Your task to perform on an android device: clear all cookies in the chrome app Image 0: 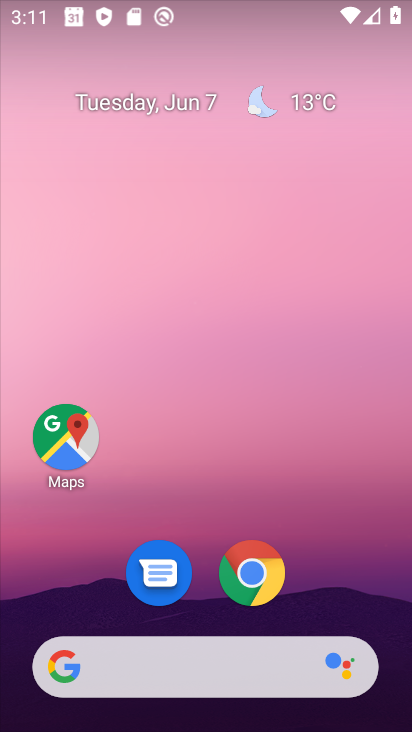
Step 0: click (263, 578)
Your task to perform on an android device: clear all cookies in the chrome app Image 1: 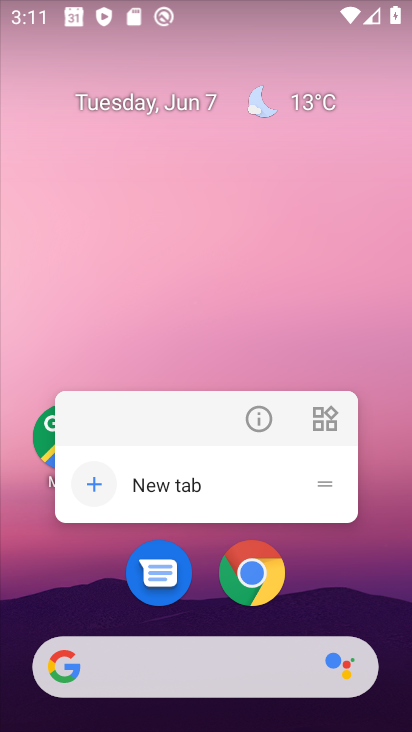
Step 1: click (263, 578)
Your task to perform on an android device: clear all cookies in the chrome app Image 2: 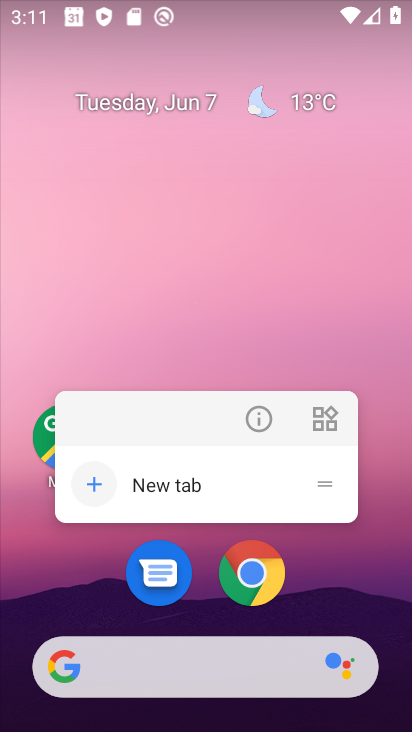
Step 2: click (263, 578)
Your task to perform on an android device: clear all cookies in the chrome app Image 3: 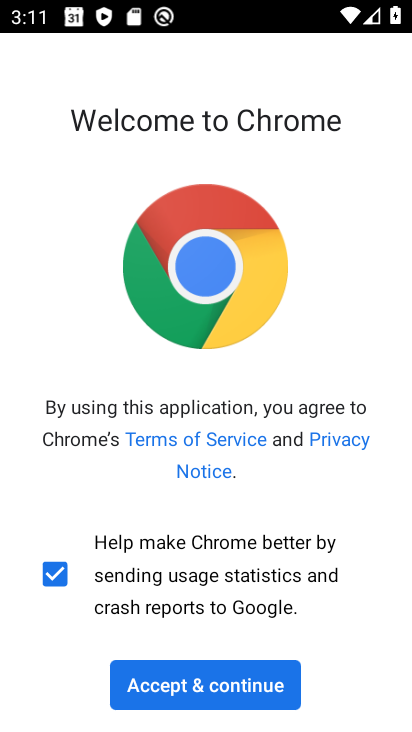
Step 3: click (249, 681)
Your task to perform on an android device: clear all cookies in the chrome app Image 4: 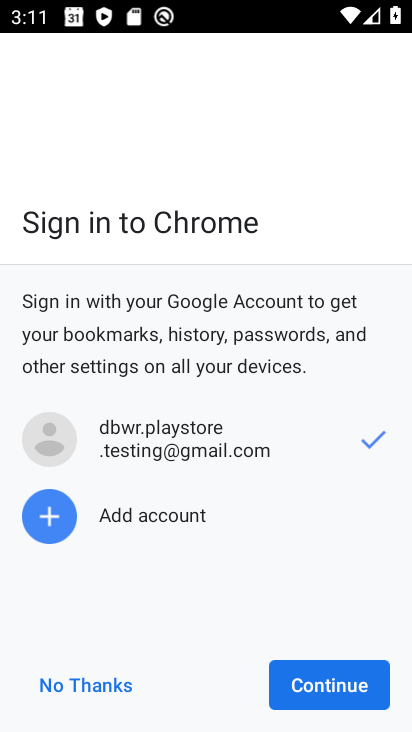
Step 4: click (318, 679)
Your task to perform on an android device: clear all cookies in the chrome app Image 5: 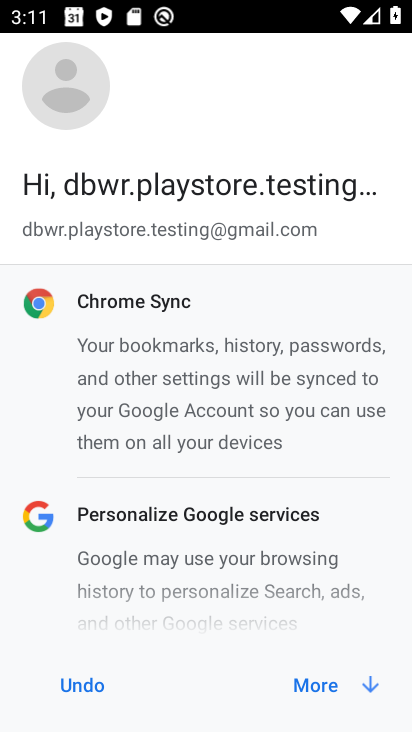
Step 5: click (318, 679)
Your task to perform on an android device: clear all cookies in the chrome app Image 6: 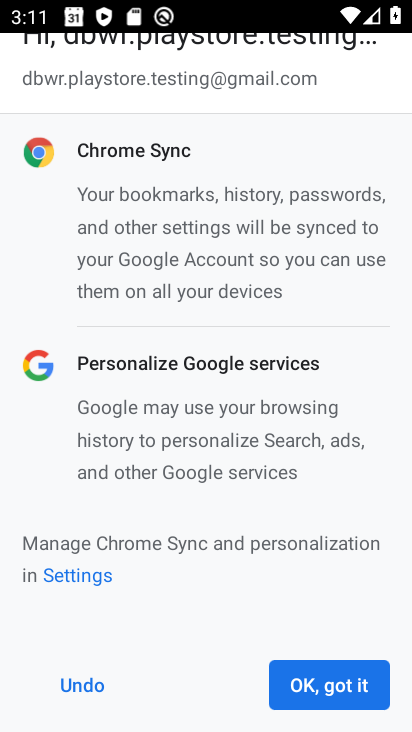
Step 6: click (318, 679)
Your task to perform on an android device: clear all cookies in the chrome app Image 7: 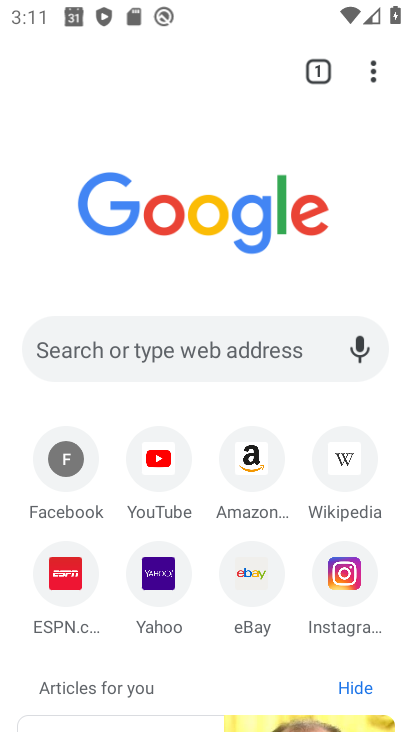
Step 7: click (369, 83)
Your task to perform on an android device: clear all cookies in the chrome app Image 8: 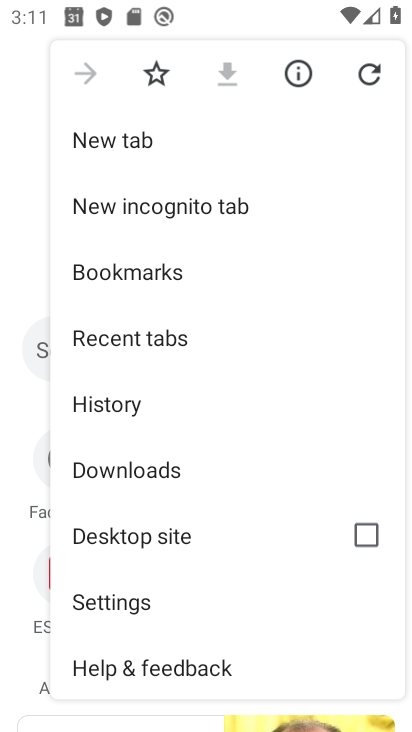
Step 8: click (205, 391)
Your task to perform on an android device: clear all cookies in the chrome app Image 9: 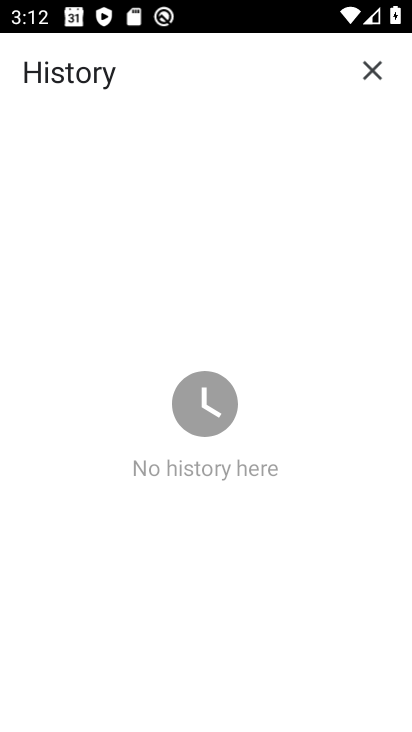
Step 9: task complete